Your task to perform on an android device: open app "Walmart Shopping & Grocery" (install if not already installed) Image 0: 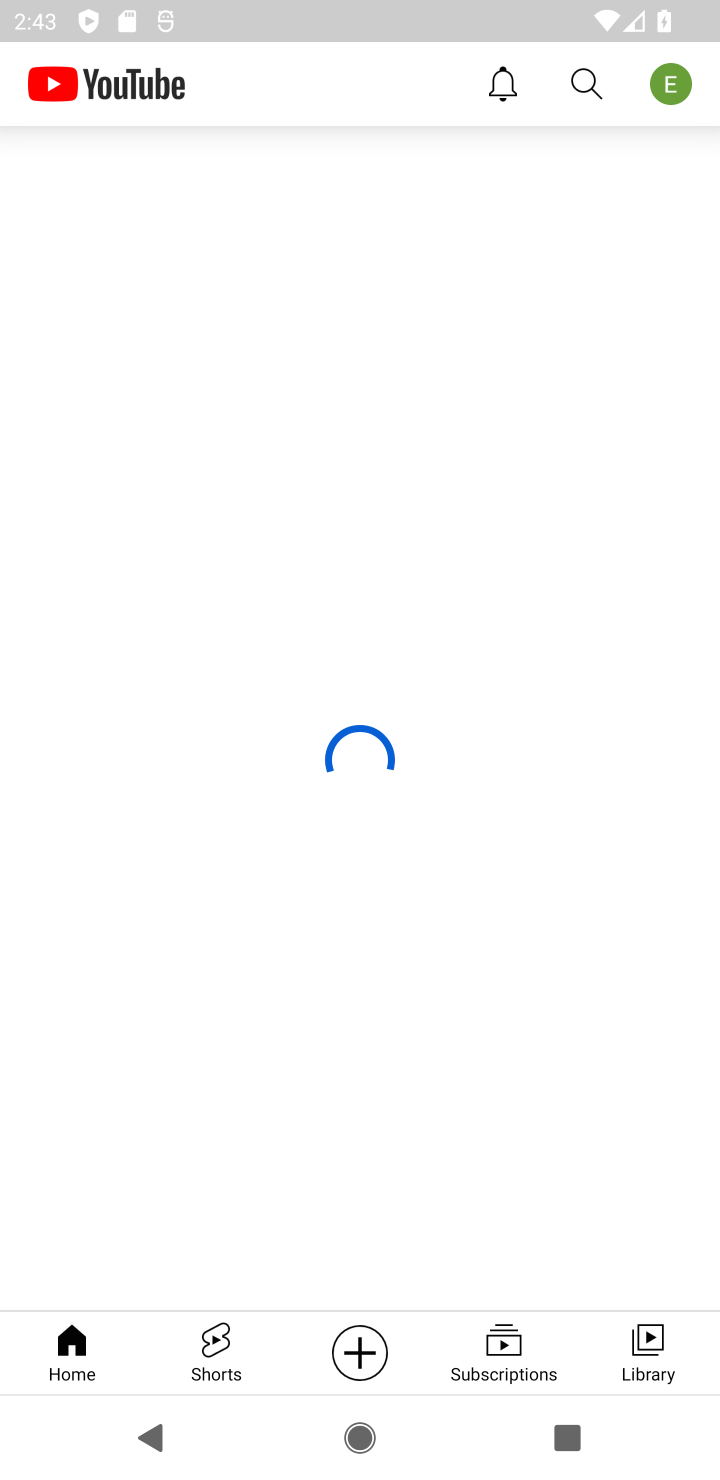
Step 0: press home button
Your task to perform on an android device: open app "Walmart Shopping & Grocery" (install if not already installed) Image 1: 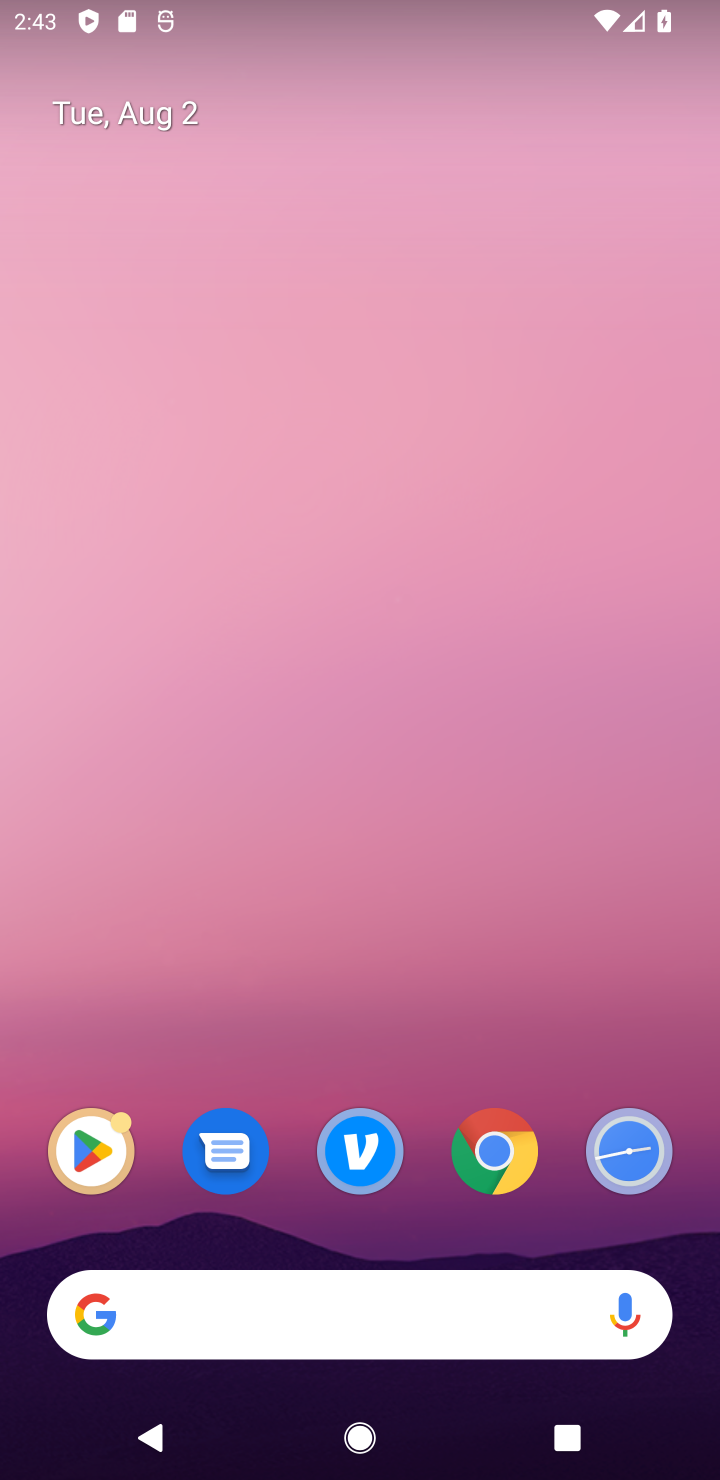
Step 1: drag from (359, 923) to (447, 411)
Your task to perform on an android device: open app "Walmart Shopping & Grocery" (install if not already installed) Image 2: 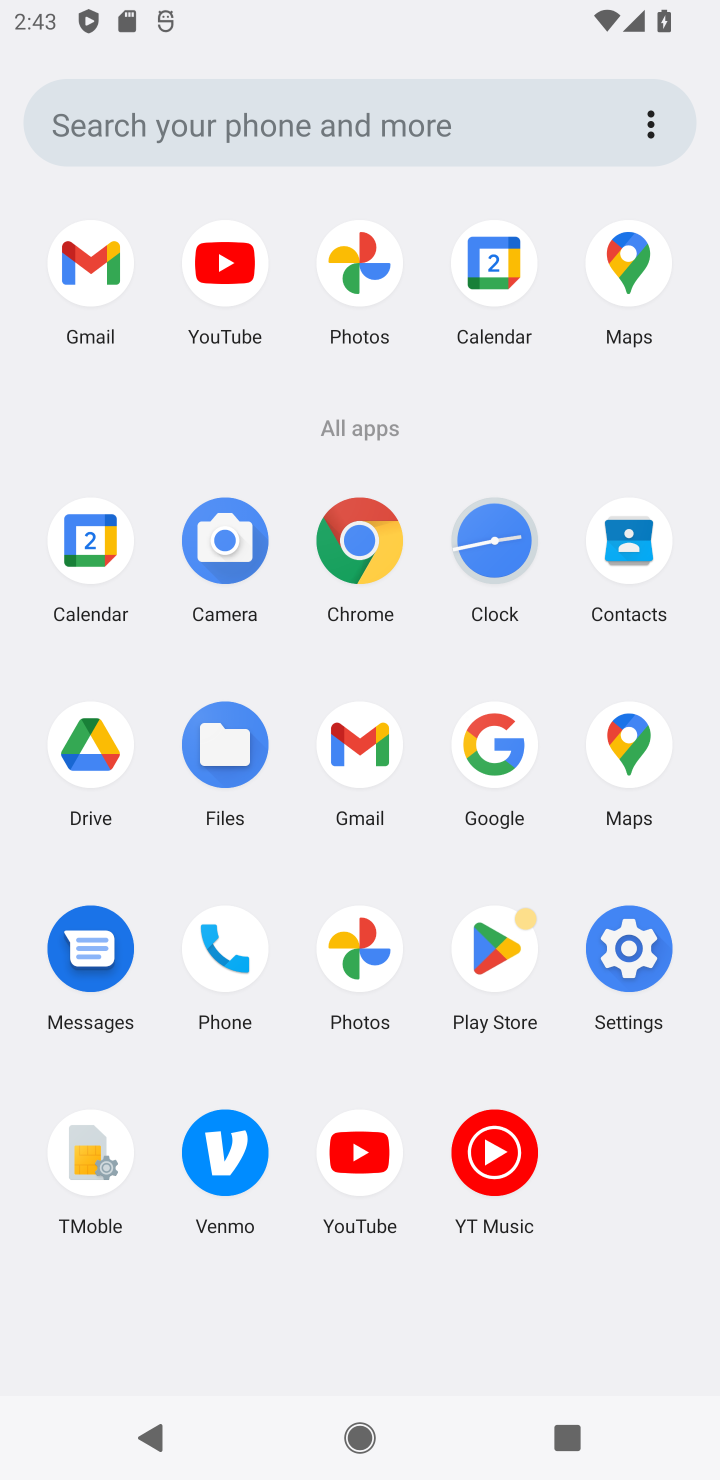
Step 2: click (508, 950)
Your task to perform on an android device: open app "Walmart Shopping & Grocery" (install if not already installed) Image 3: 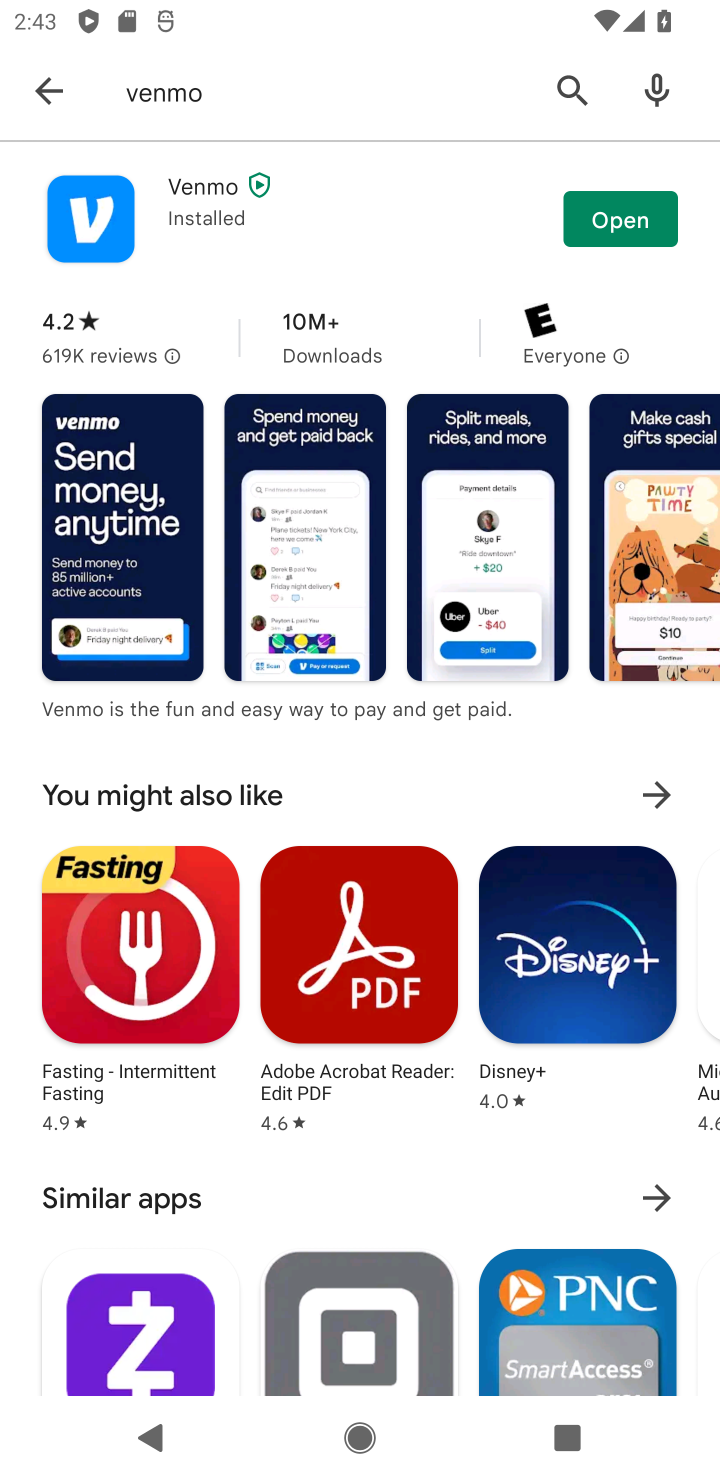
Step 3: click (56, 89)
Your task to perform on an android device: open app "Walmart Shopping & Grocery" (install if not already installed) Image 4: 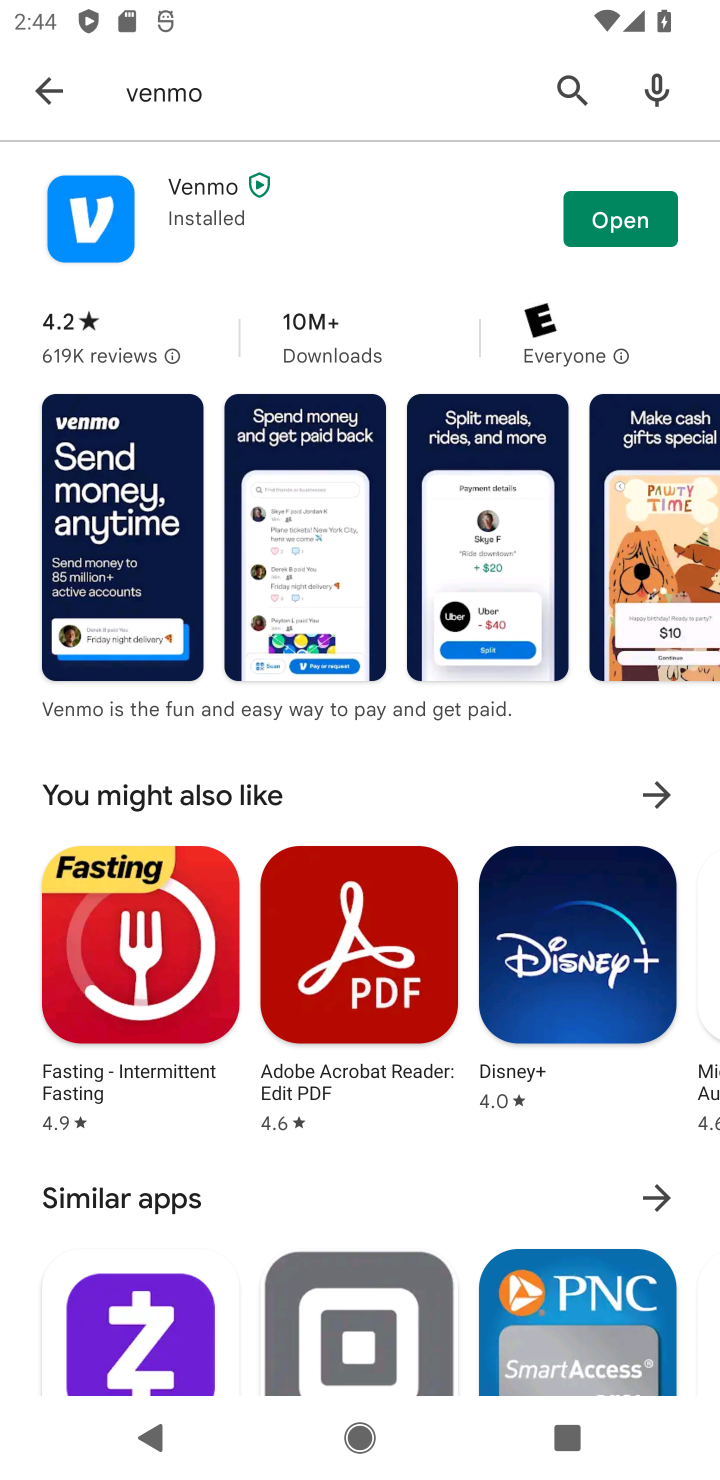
Step 4: click (30, 94)
Your task to perform on an android device: open app "Walmart Shopping & Grocery" (install if not already installed) Image 5: 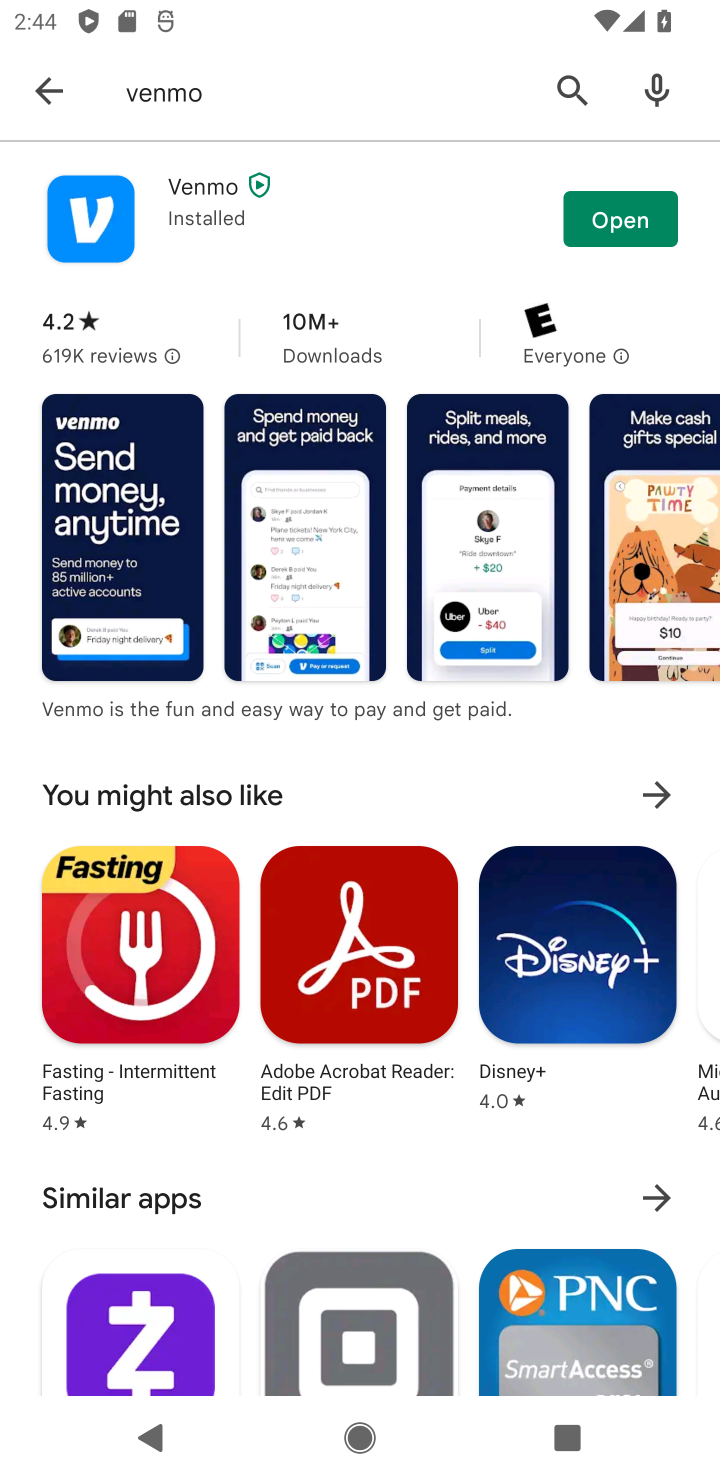
Step 5: click (45, 94)
Your task to perform on an android device: open app "Walmart Shopping & Grocery" (install if not already installed) Image 6: 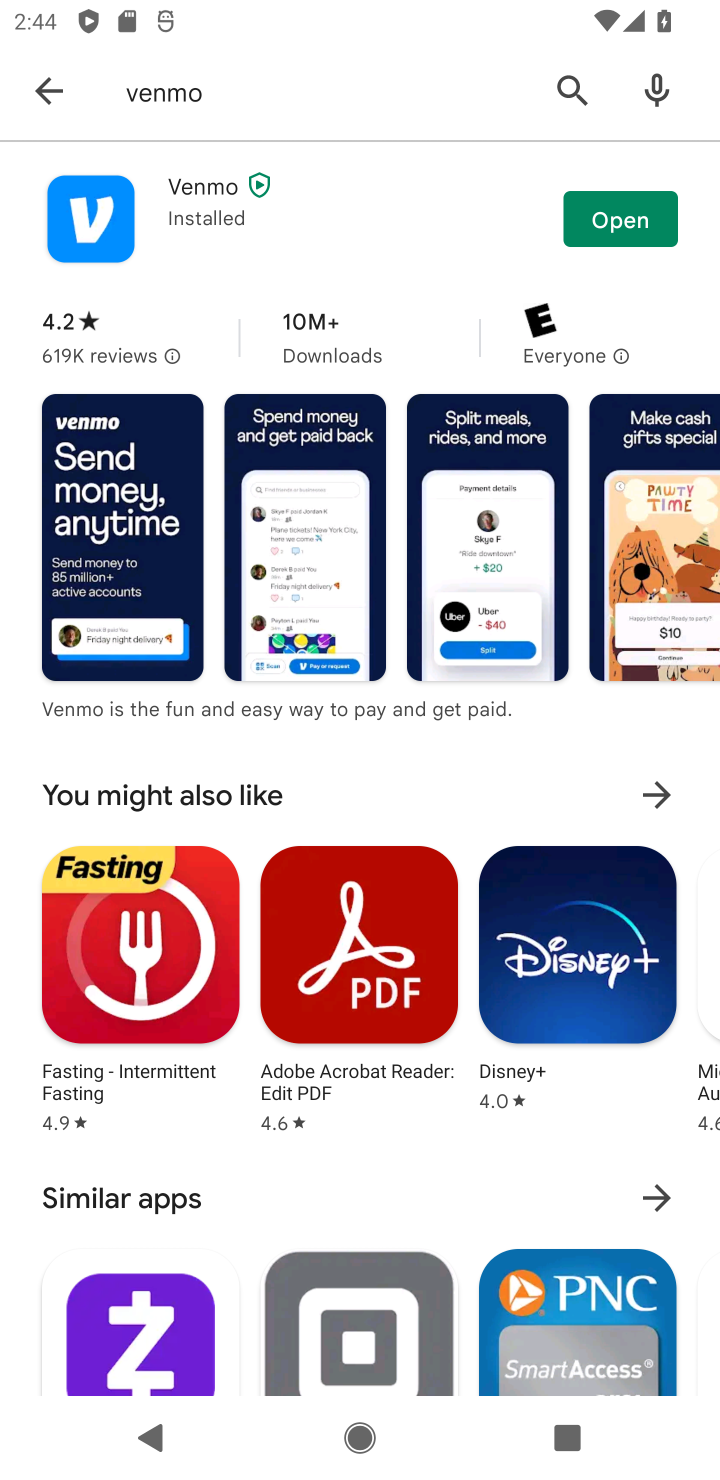
Step 6: click (34, 95)
Your task to perform on an android device: open app "Walmart Shopping & Grocery" (install if not already installed) Image 7: 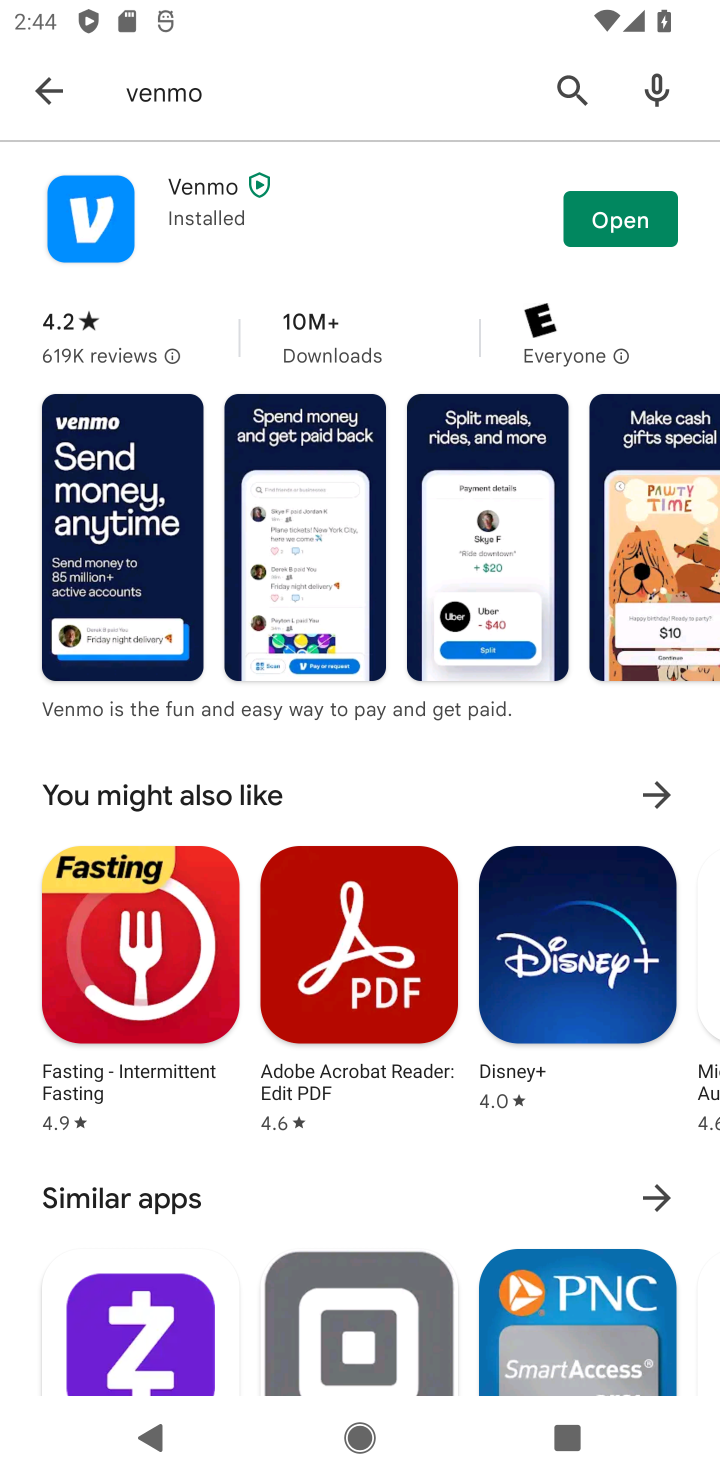
Step 7: click (57, 60)
Your task to perform on an android device: open app "Walmart Shopping & Grocery" (install if not already installed) Image 8: 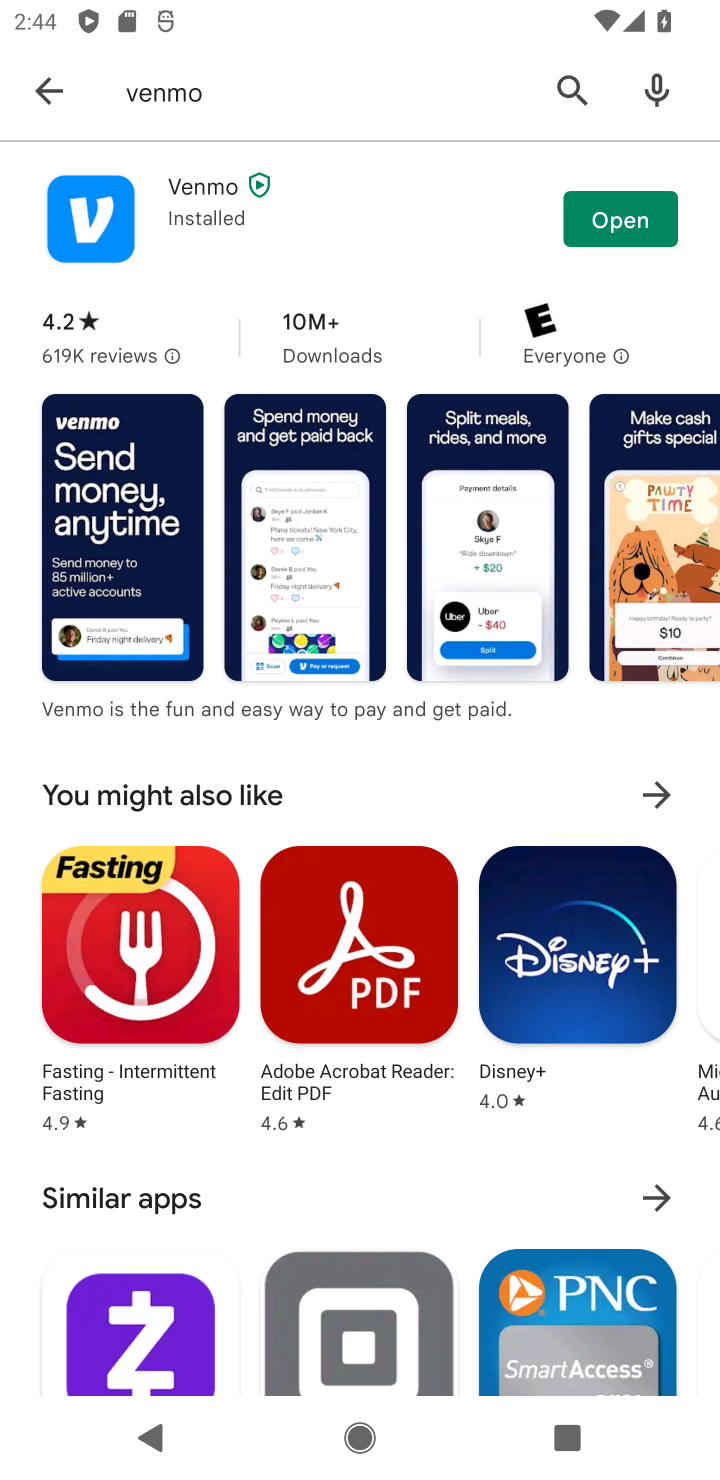
Step 8: click (57, 91)
Your task to perform on an android device: open app "Walmart Shopping & Grocery" (install if not already installed) Image 9: 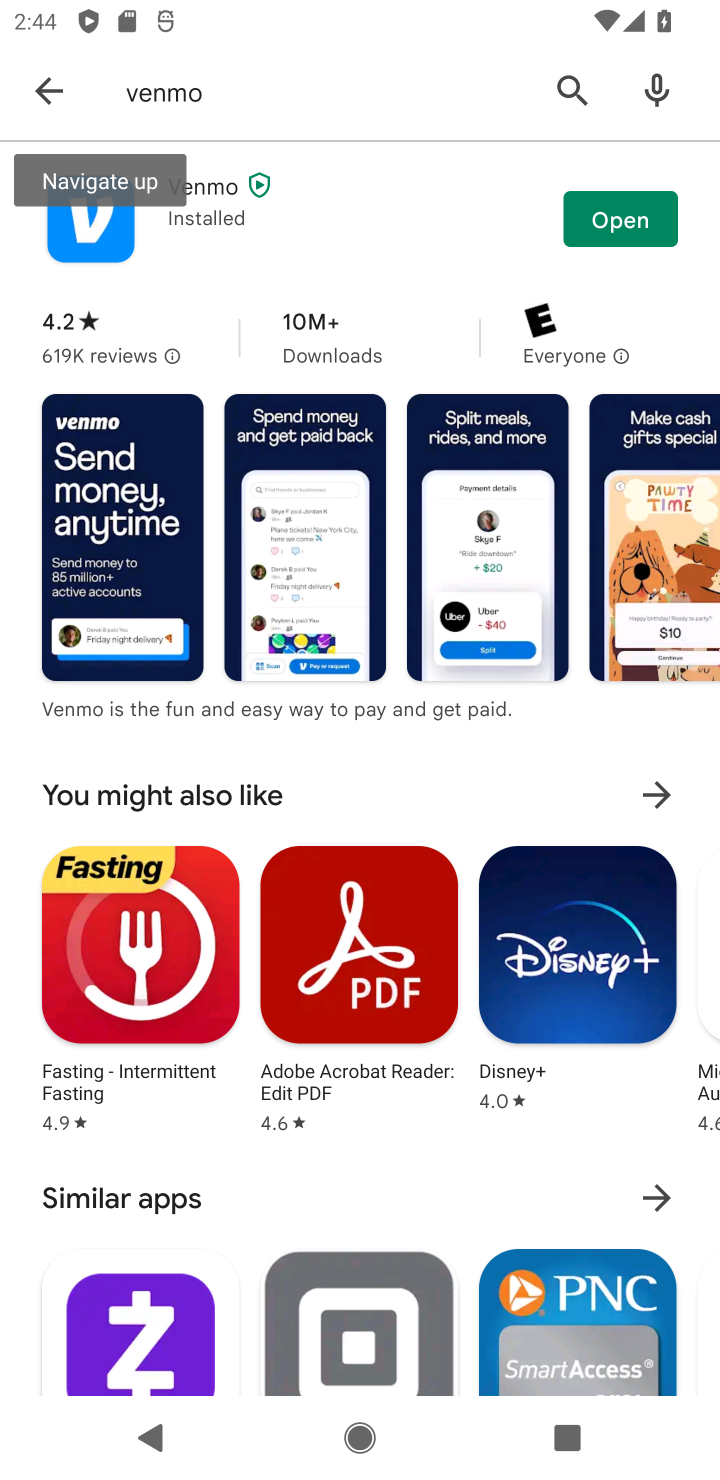
Step 9: click (55, 89)
Your task to perform on an android device: open app "Walmart Shopping & Grocery" (install if not already installed) Image 10: 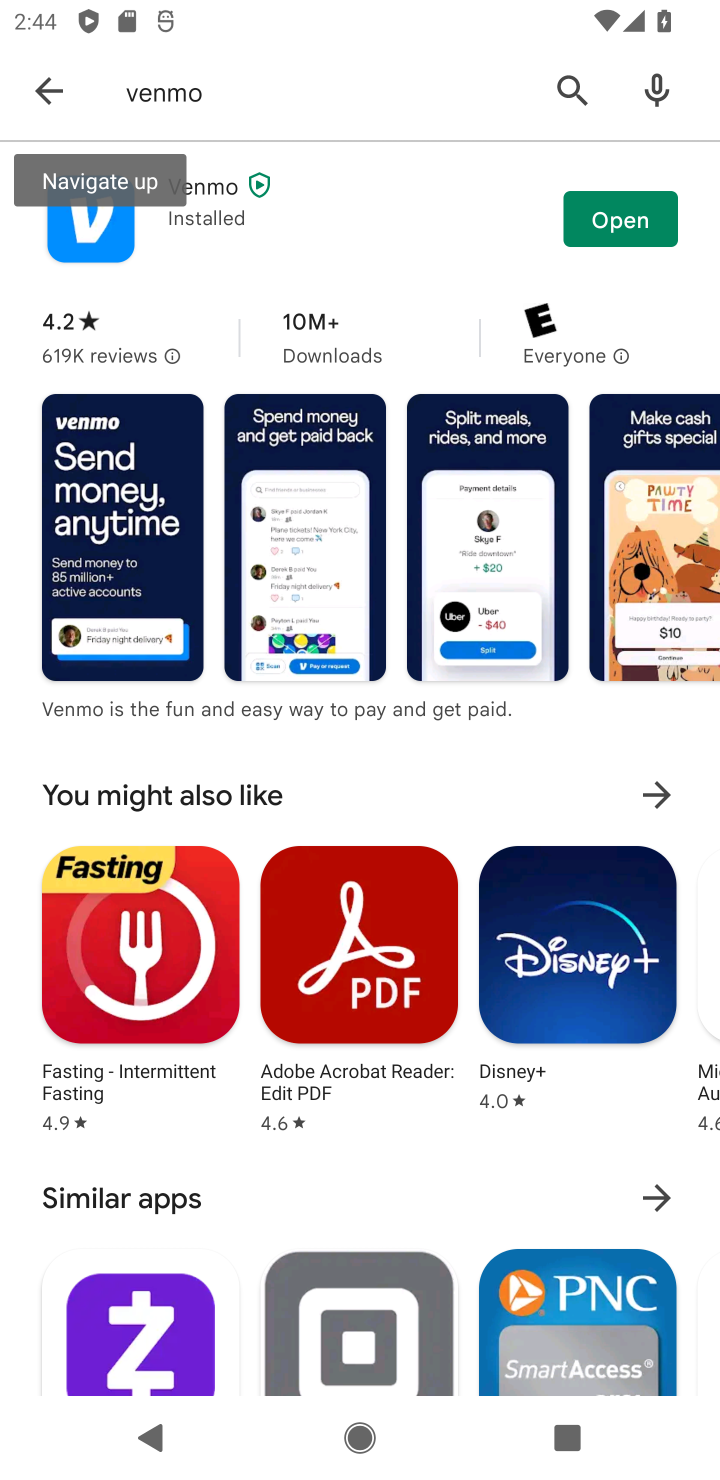
Step 10: click (55, 89)
Your task to perform on an android device: open app "Walmart Shopping & Grocery" (install if not already installed) Image 11: 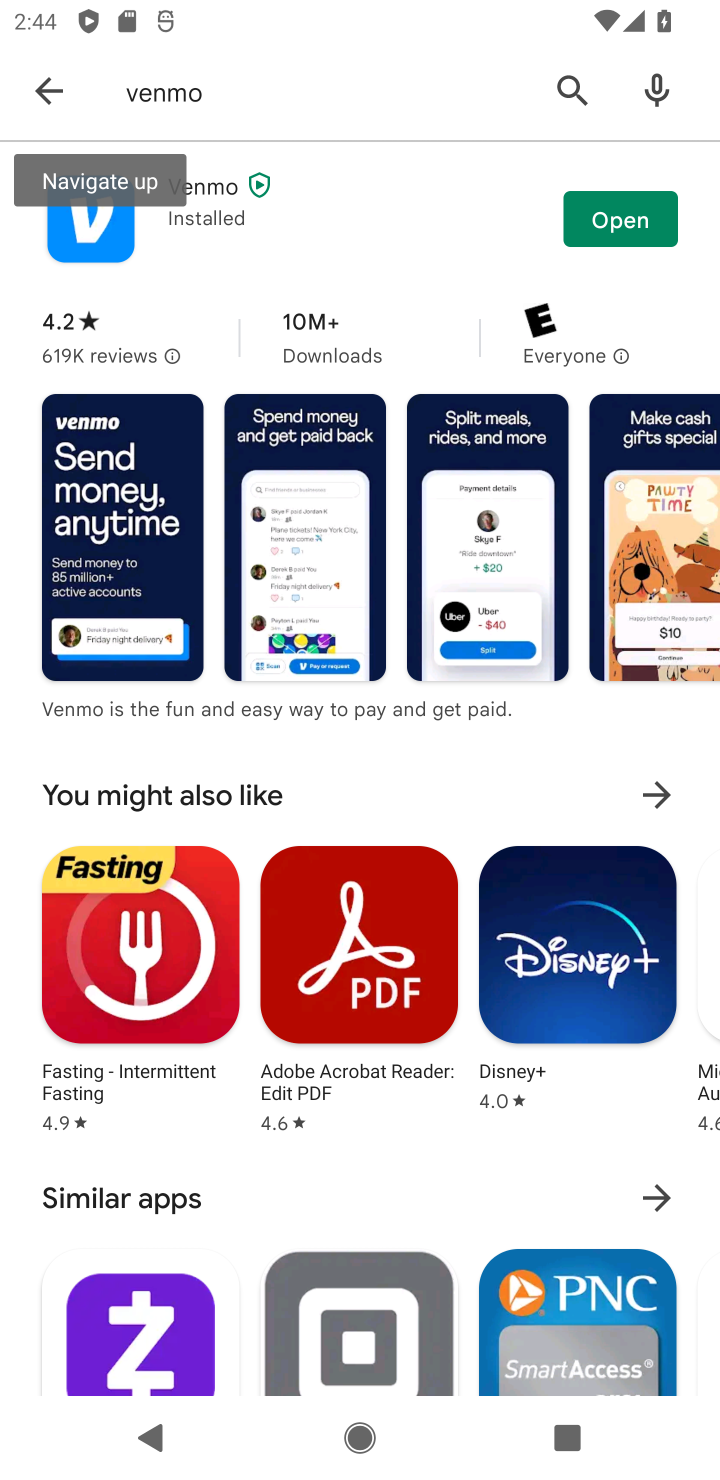
Step 11: press home button
Your task to perform on an android device: open app "Walmart Shopping & Grocery" (install if not already installed) Image 12: 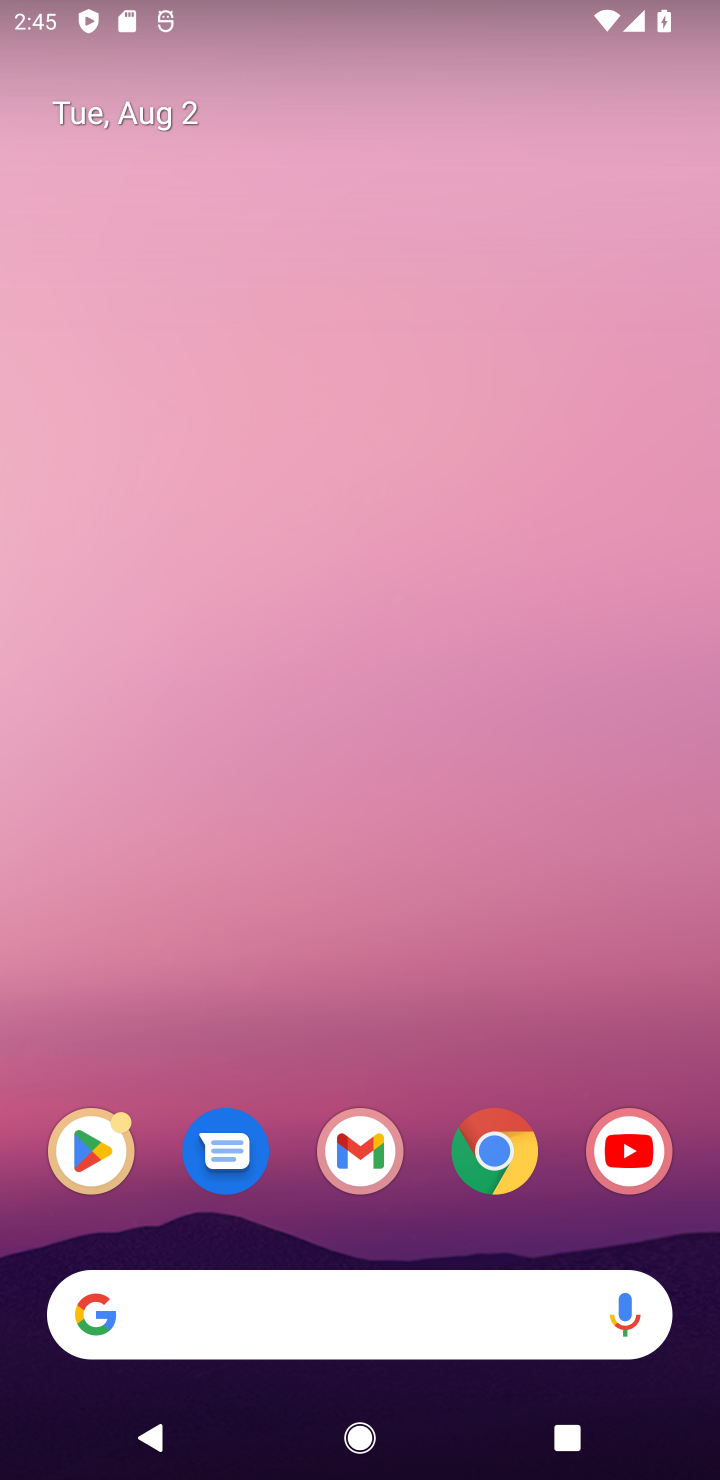
Step 12: press enter
Your task to perform on an android device: open app "Walmart Shopping & Grocery" (install if not already installed) Image 13: 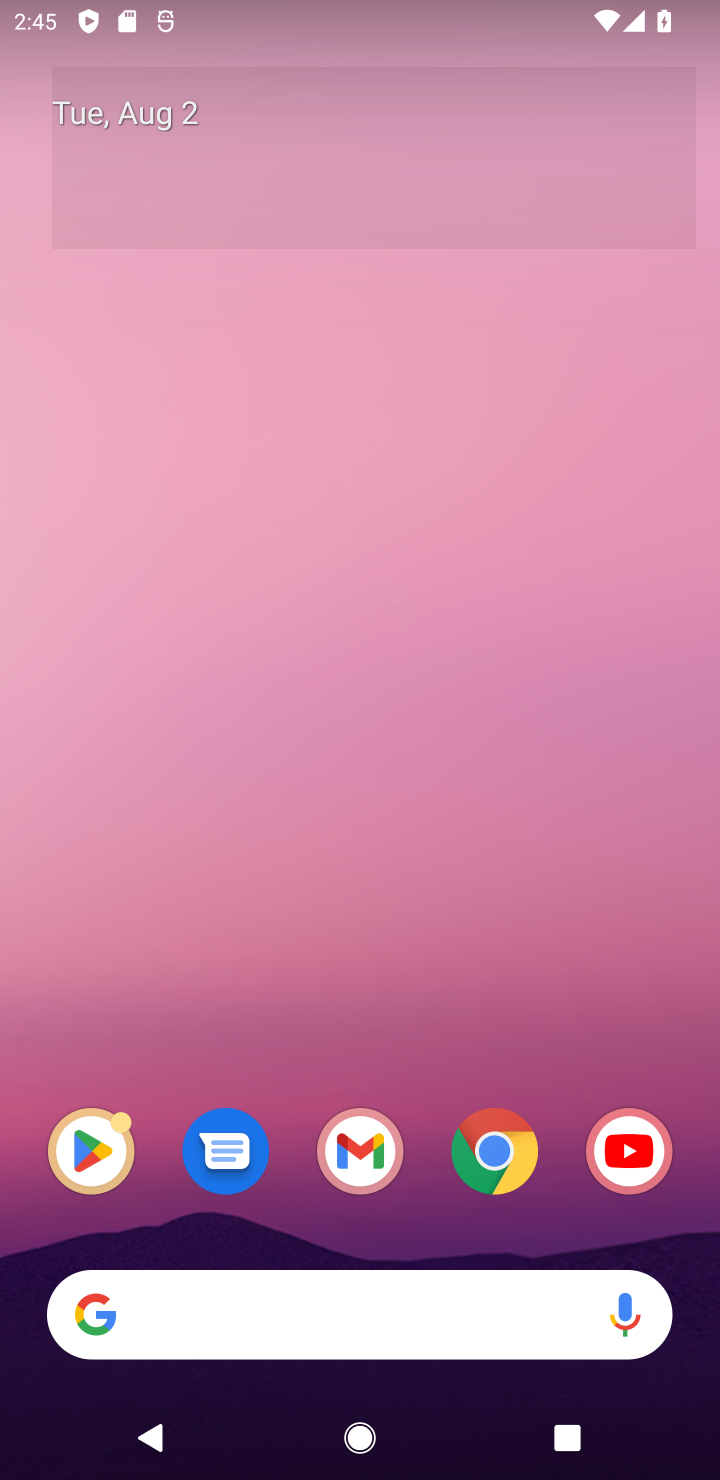
Step 13: drag from (243, 1176) to (456, 104)
Your task to perform on an android device: open app "Walmart Shopping & Grocery" (install if not already installed) Image 14: 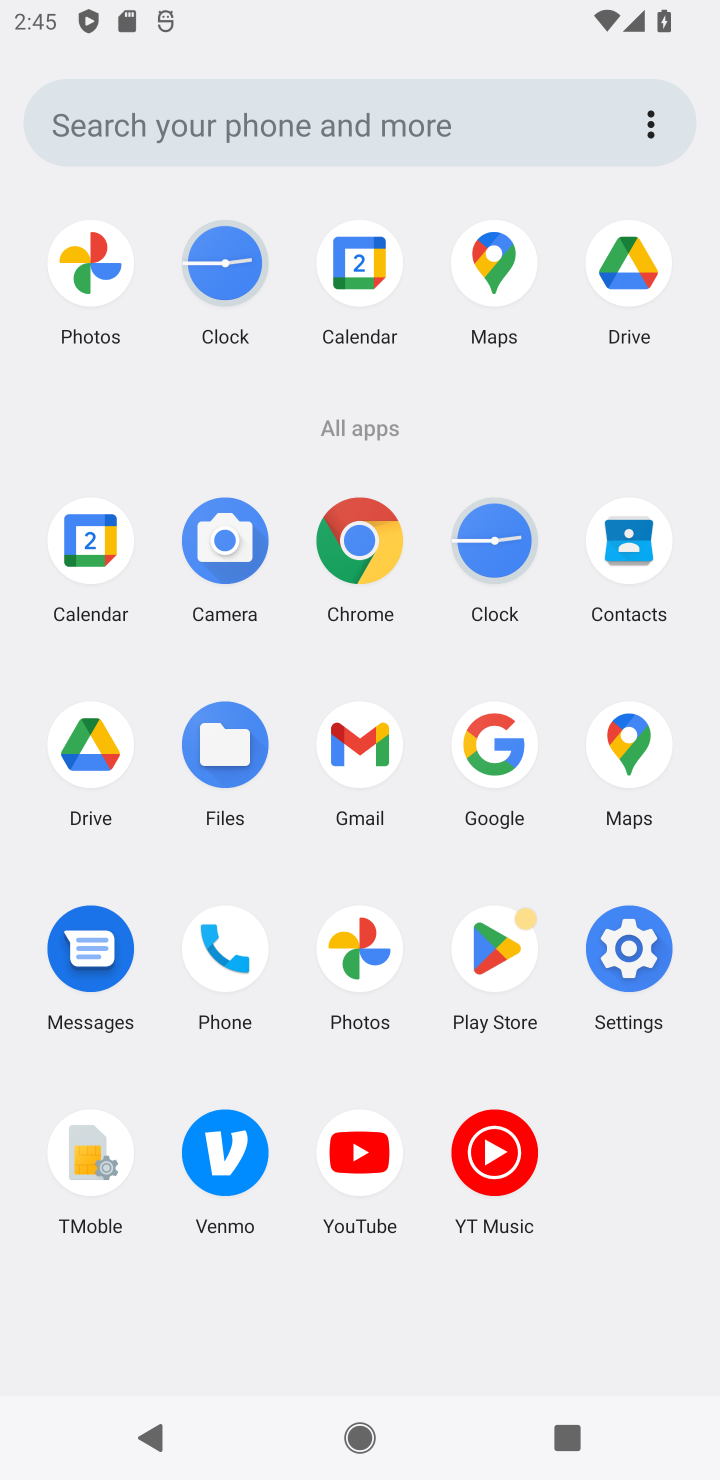
Step 14: click (482, 952)
Your task to perform on an android device: open app "Walmart Shopping & Grocery" (install if not already installed) Image 15: 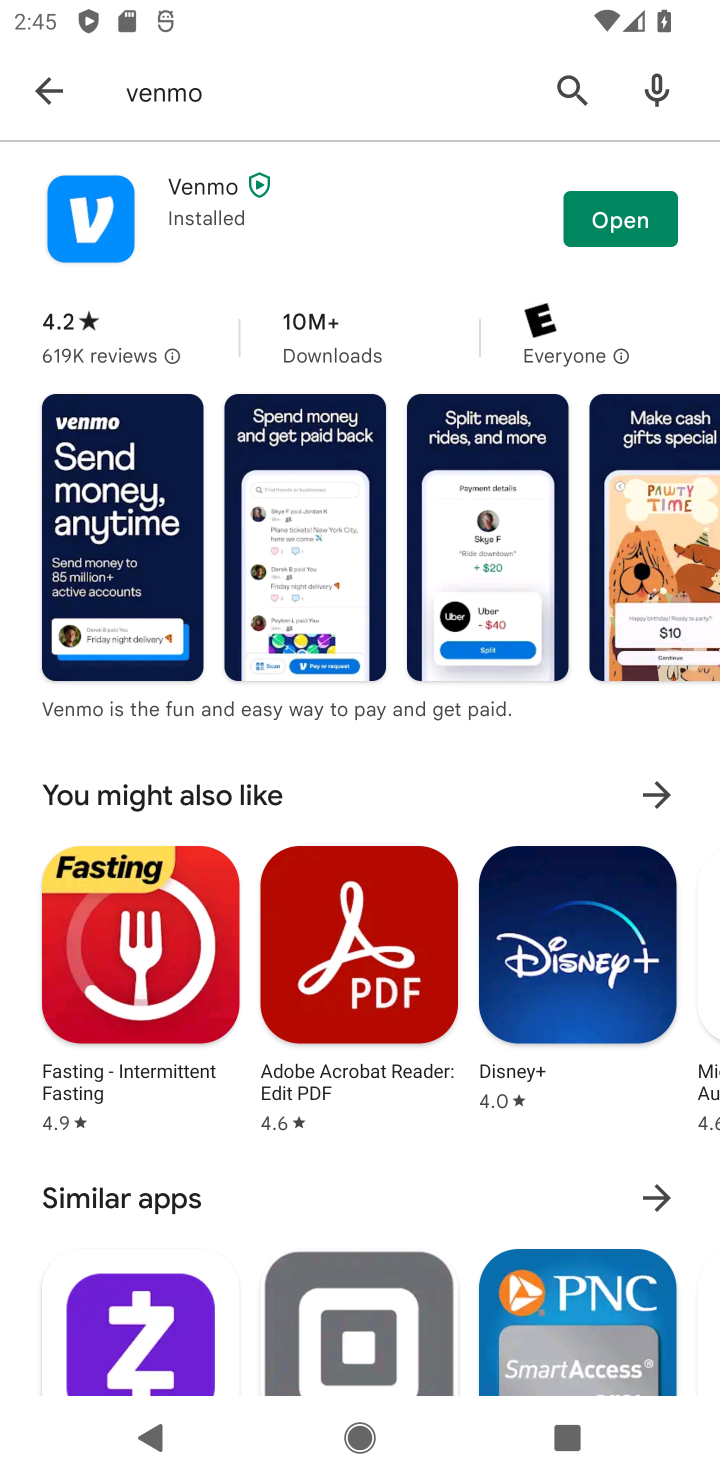
Step 15: click (45, 84)
Your task to perform on an android device: open app "Walmart Shopping & Grocery" (install if not already installed) Image 16: 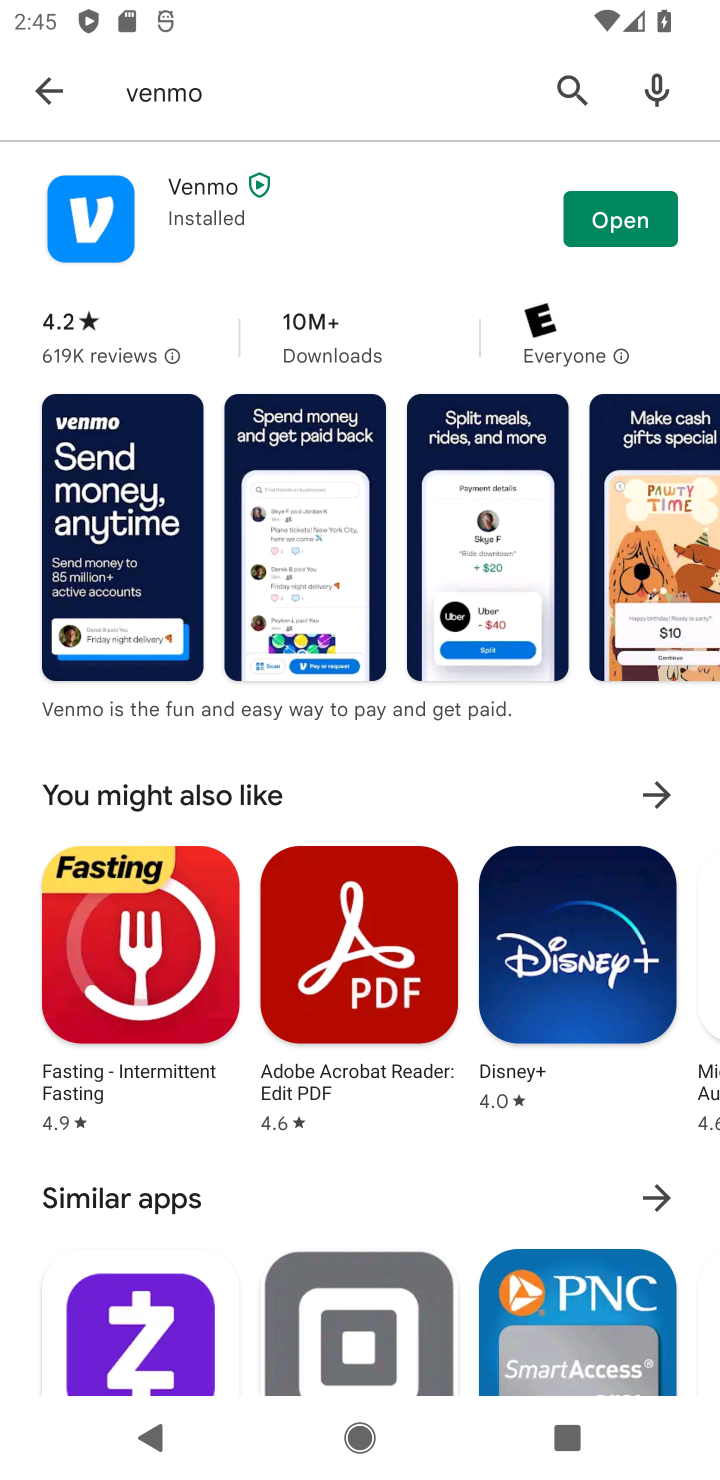
Step 16: task complete